Your task to perform on an android device: Search for sushi restaurants on Maps Image 0: 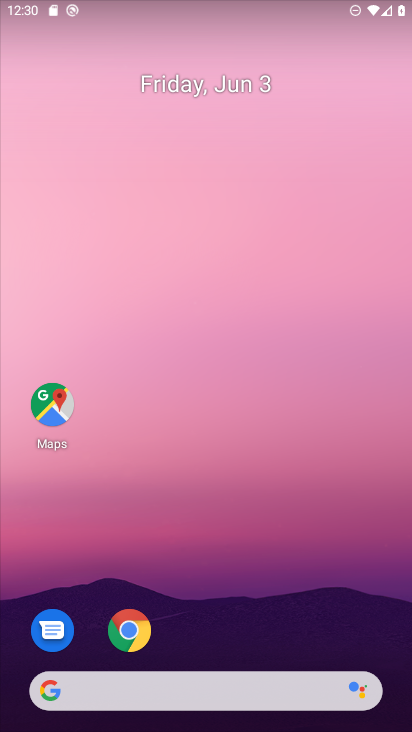
Step 0: click (63, 410)
Your task to perform on an android device: Search for sushi restaurants on Maps Image 1: 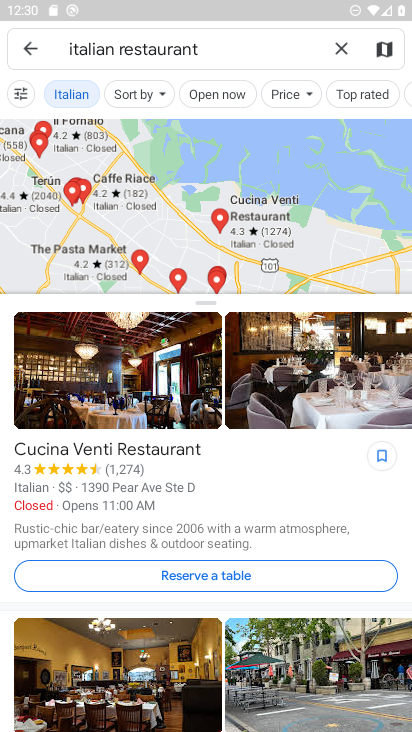
Step 1: click (348, 51)
Your task to perform on an android device: Search for sushi restaurants on Maps Image 2: 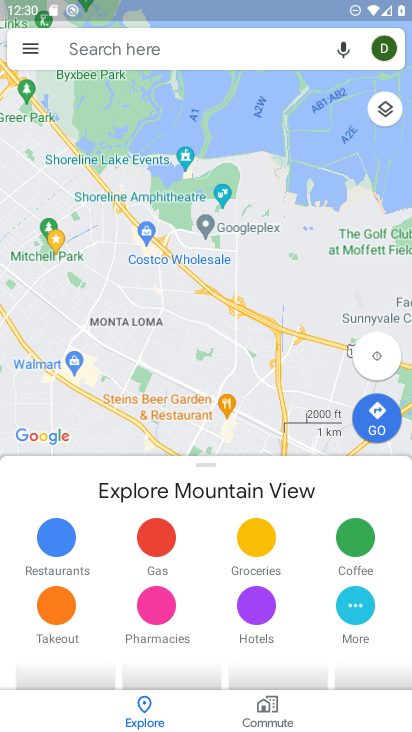
Step 2: click (240, 46)
Your task to perform on an android device: Search for sushi restaurants on Maps Image 3: 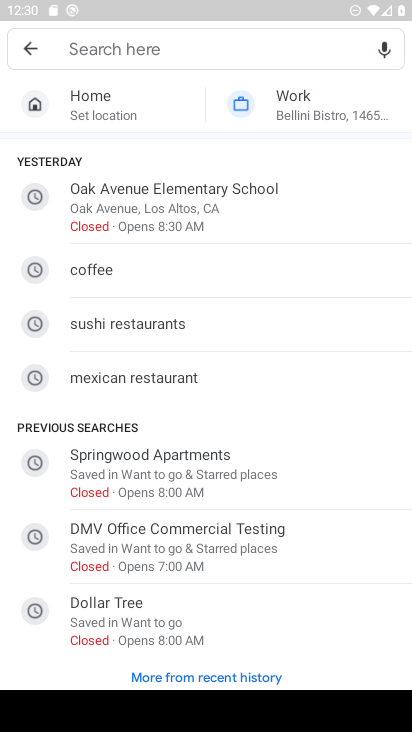
Step 3: click (199, 328)
Your task to perform on an android device: Search for sushi restaurants on Maps Image 4: 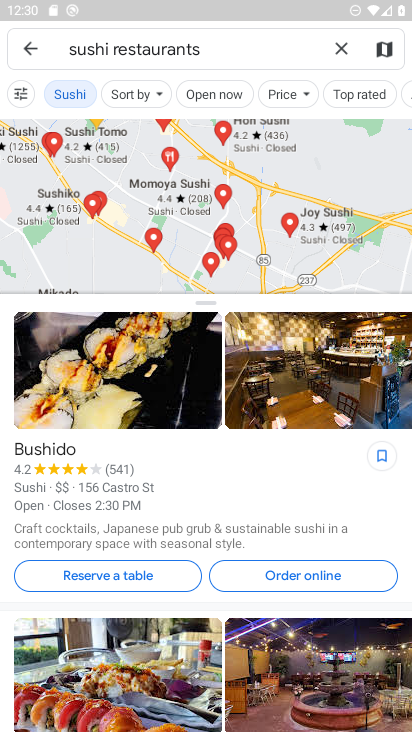
Step 4: task complete